Your task to perform on an android device: turn off improve location accuracy Image 0: 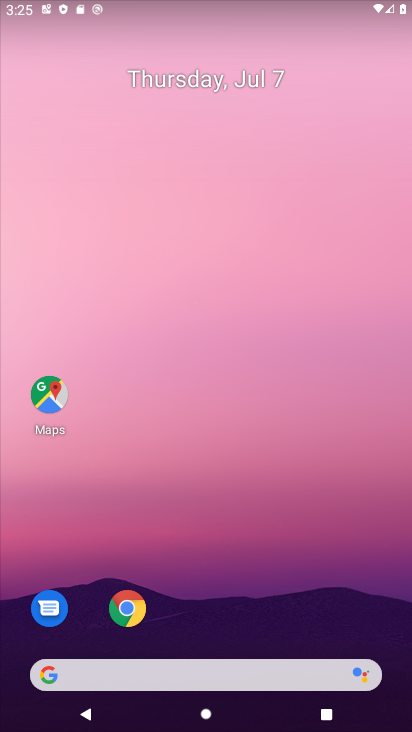
Step 0: drag from (372, 617) to (309, 121)
Your task to perform on an android device: turn off improve location accuracy Image 1: 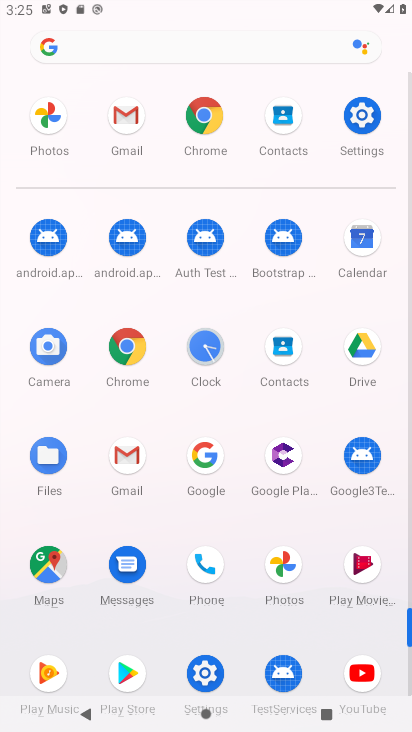
Step 1: click (204, 670)
Your task to perform on an android device: turn off improve location accuracy Image 2: 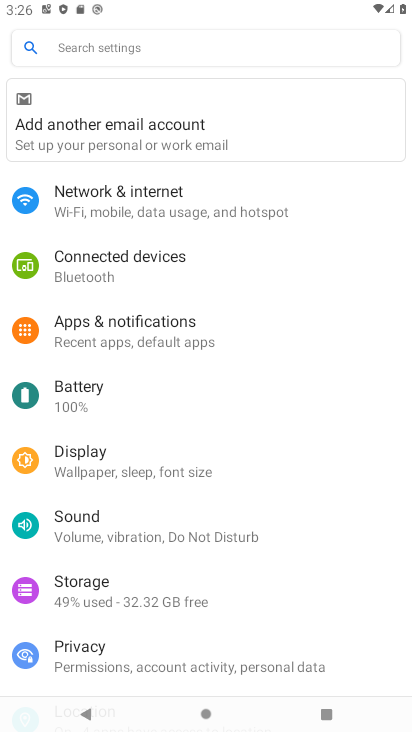
Step 2: drag from (302, 613) to (288, 251)
Your task to perform on an android device: turn off improve location accuracy Image 3: 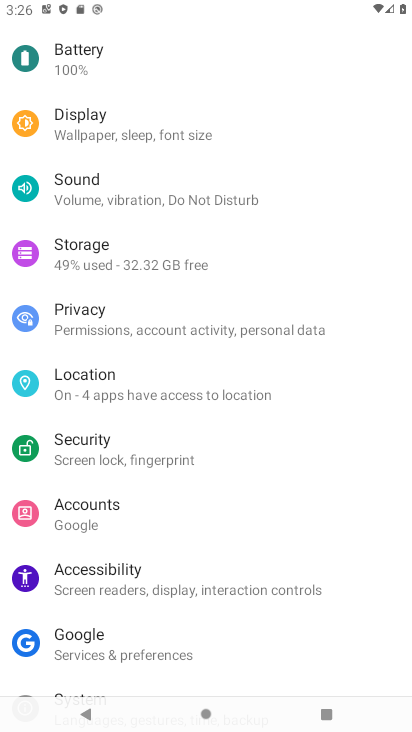
Step 3: click (102, 381)
Your task to perform on an android device: turn off improve location accuracy Image 4: 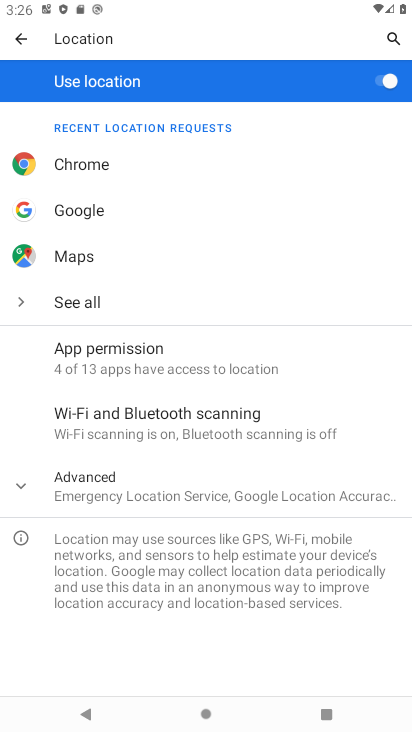
Step 4: click (58, 483)
Your task to perform on an android device: turn off improve location accuracy Image 5: 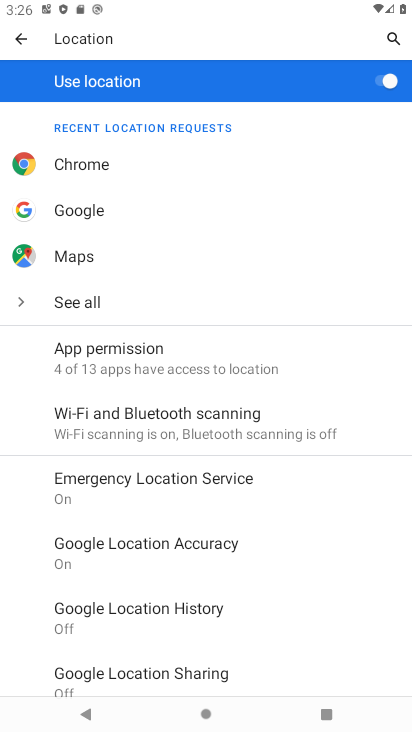
Step 5: click (119, 544)
Your task to perform on an android device: turn off improve location accuracy Image 6: 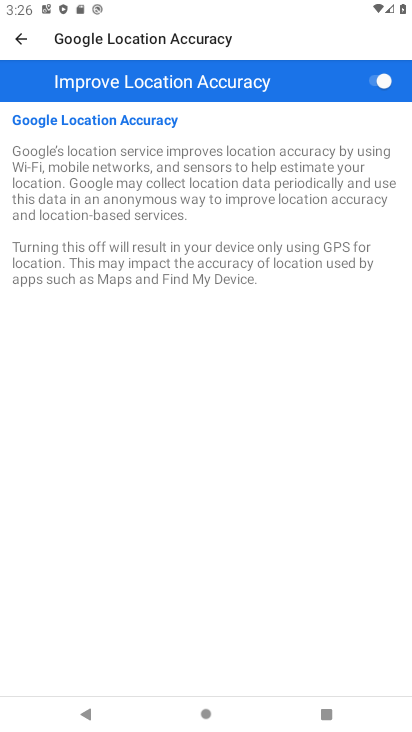
Step 6: click (371, 78)
Your task to perform on an android device: turn off improve location accuracy Image 7: 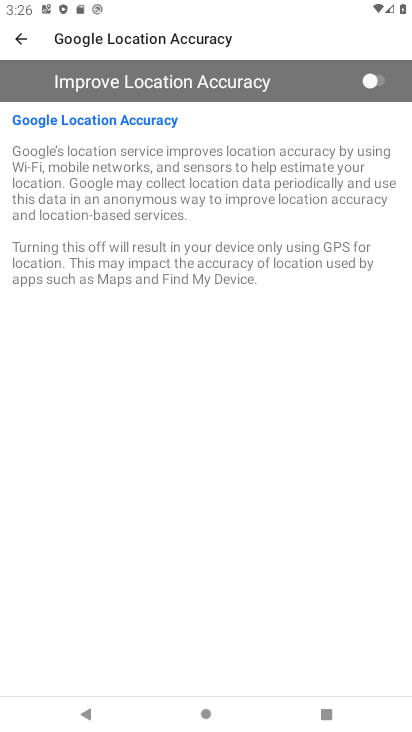
Step 7: task complete